Your task to perform on an android device: check out phone information Image 0: 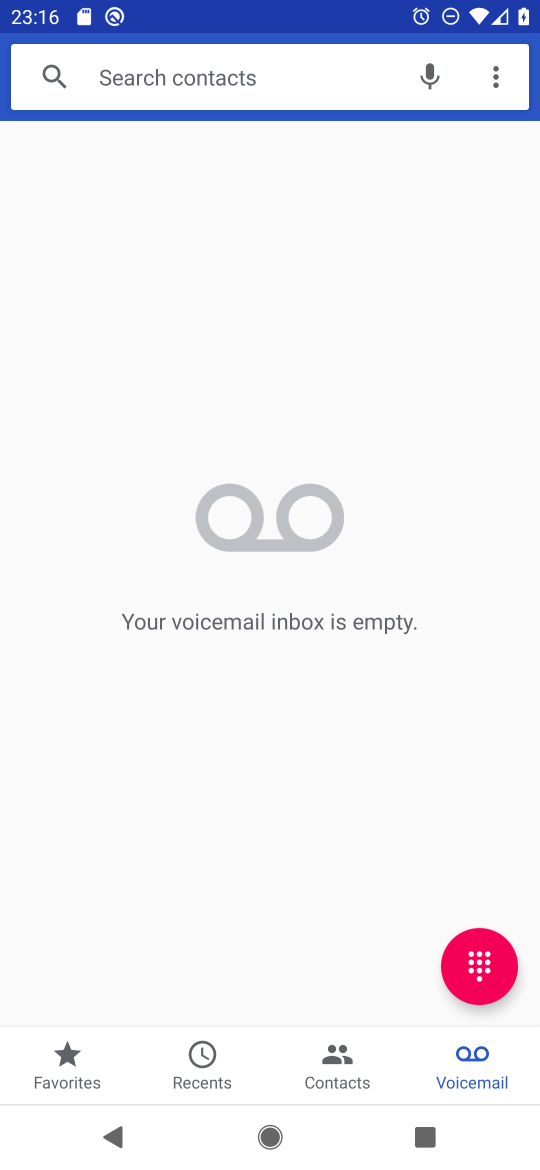
Step 0: press home button
Your task to perform on an android device: check out phone information Image 1: 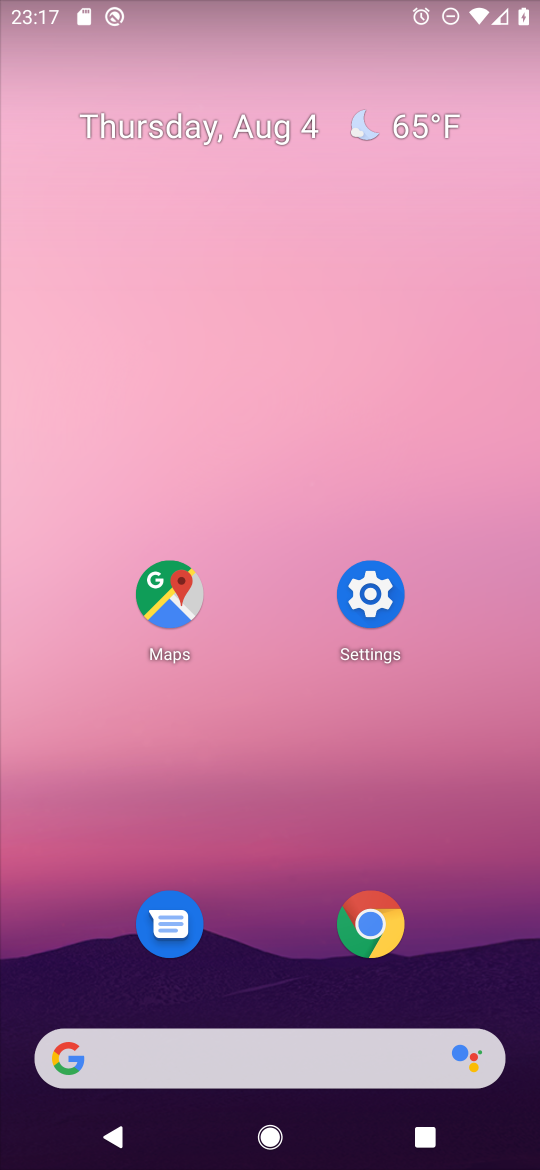
Step 1: click (373, 599)
Your task to perform on an android device: check out phone information Image 2: 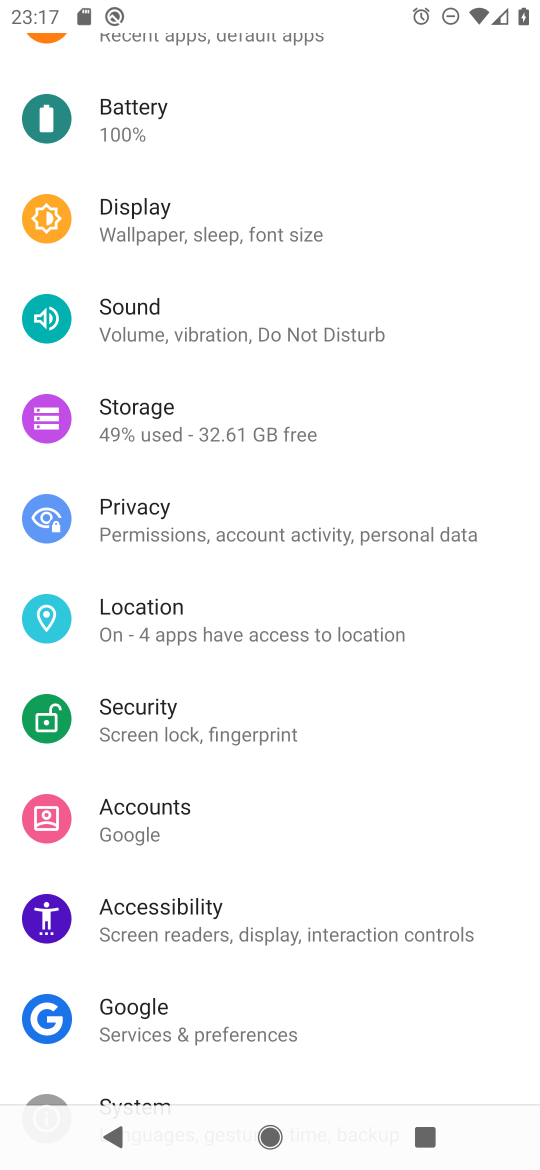
Step 2: drag from (322, 1063) to (483, 288)
Your task to perform on an android device: check out phone information Image 3: 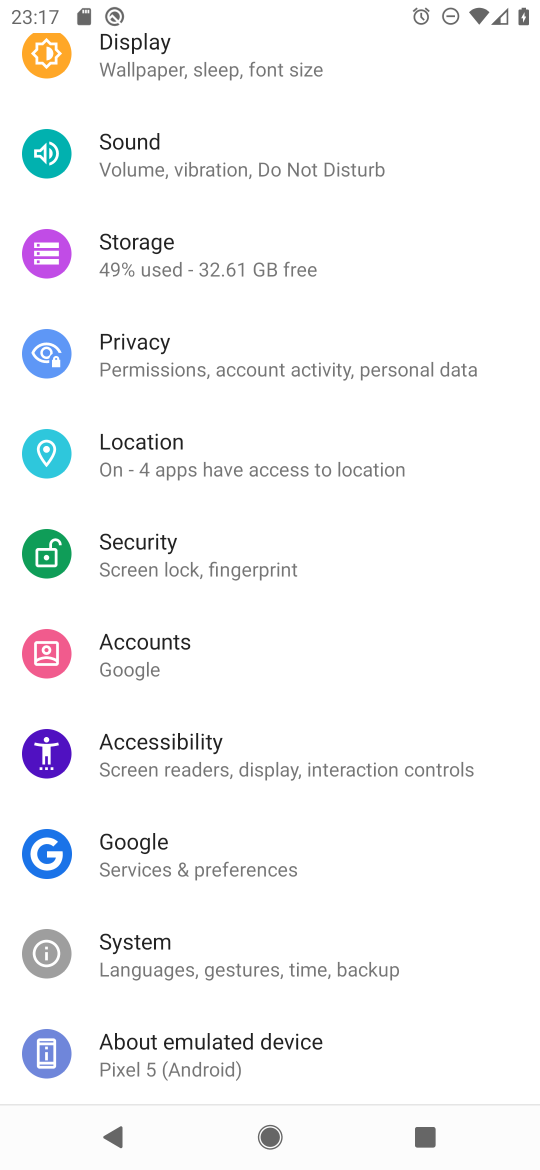
Step 3: drag from (235, 979) to (475, 239)
Your task to perform on an android device: check out phone information Image 4: 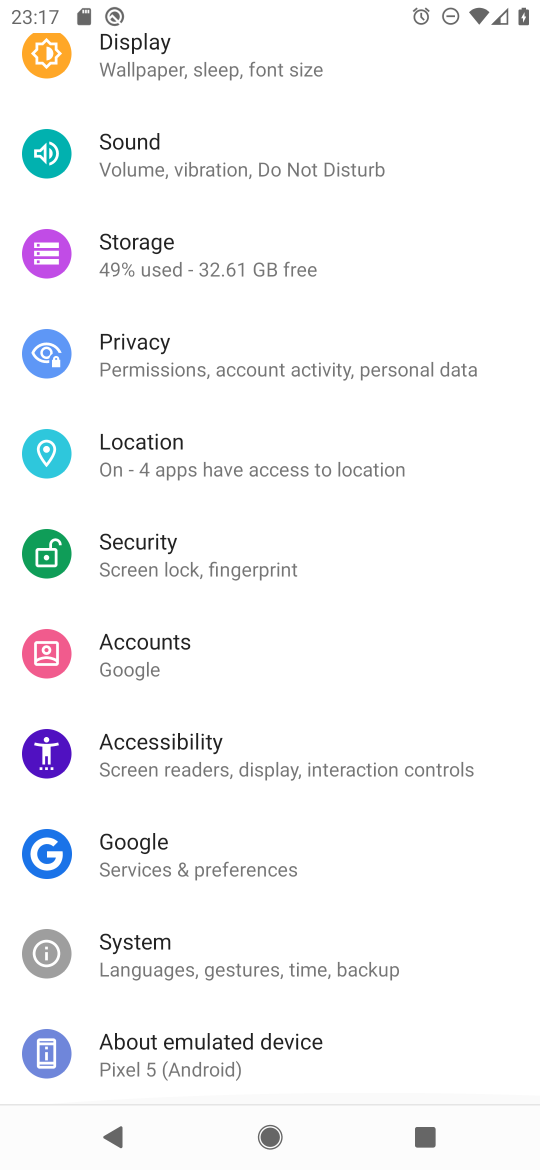
Step 4: click (169, 1059)
Your task to perform on an android device: check out phone information Image 5: 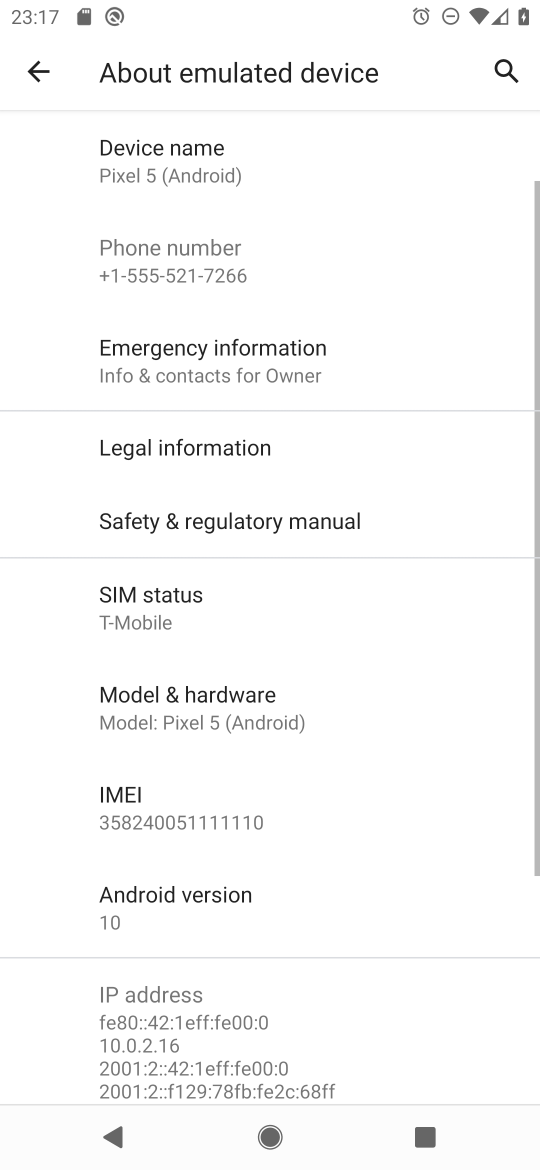
Step 5: task complete